Your task to perform on an android device: open app "Upside-Cash back on gas & food" (install if not already installed) and go to login screen Image 0: 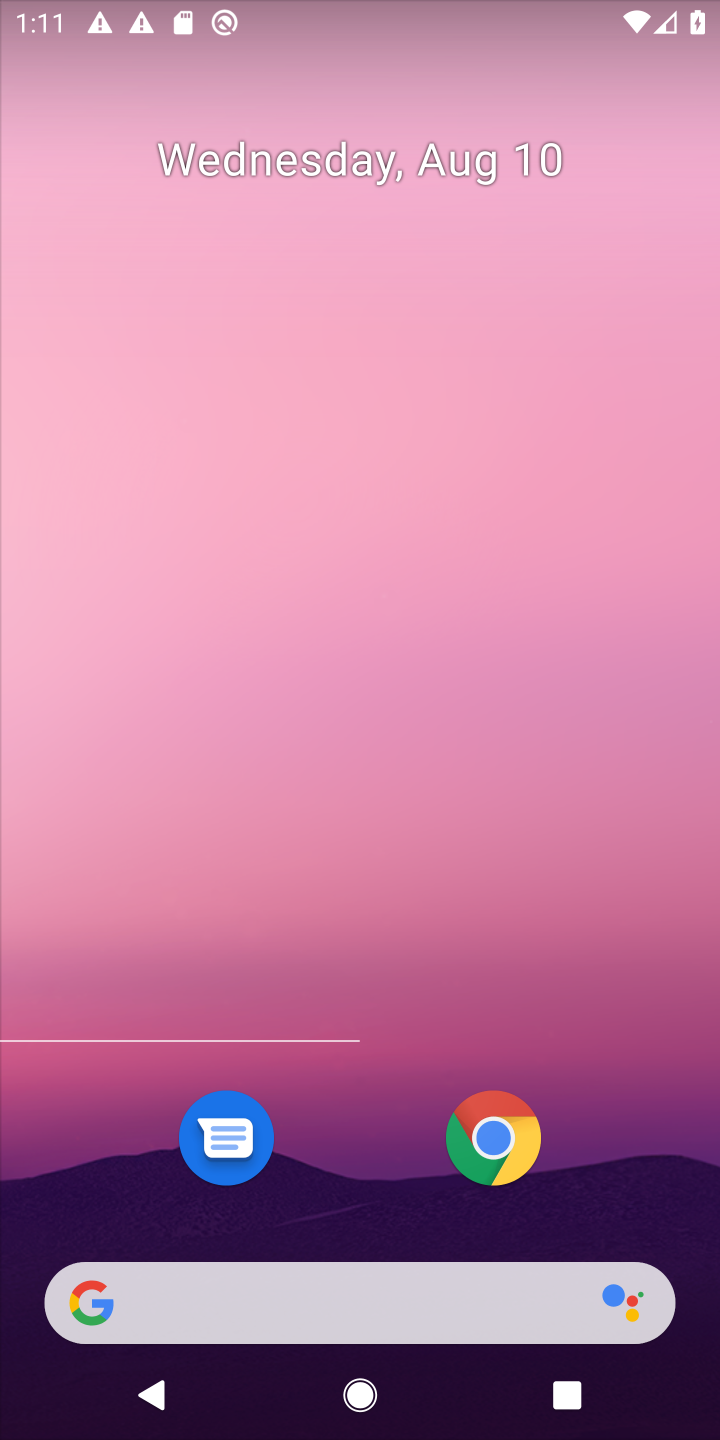
Step 0: press home button
Your task to perform on an android device: open app "Upside-Cash back on gas & food" (install if not already installed) and go to login screen Image 1: 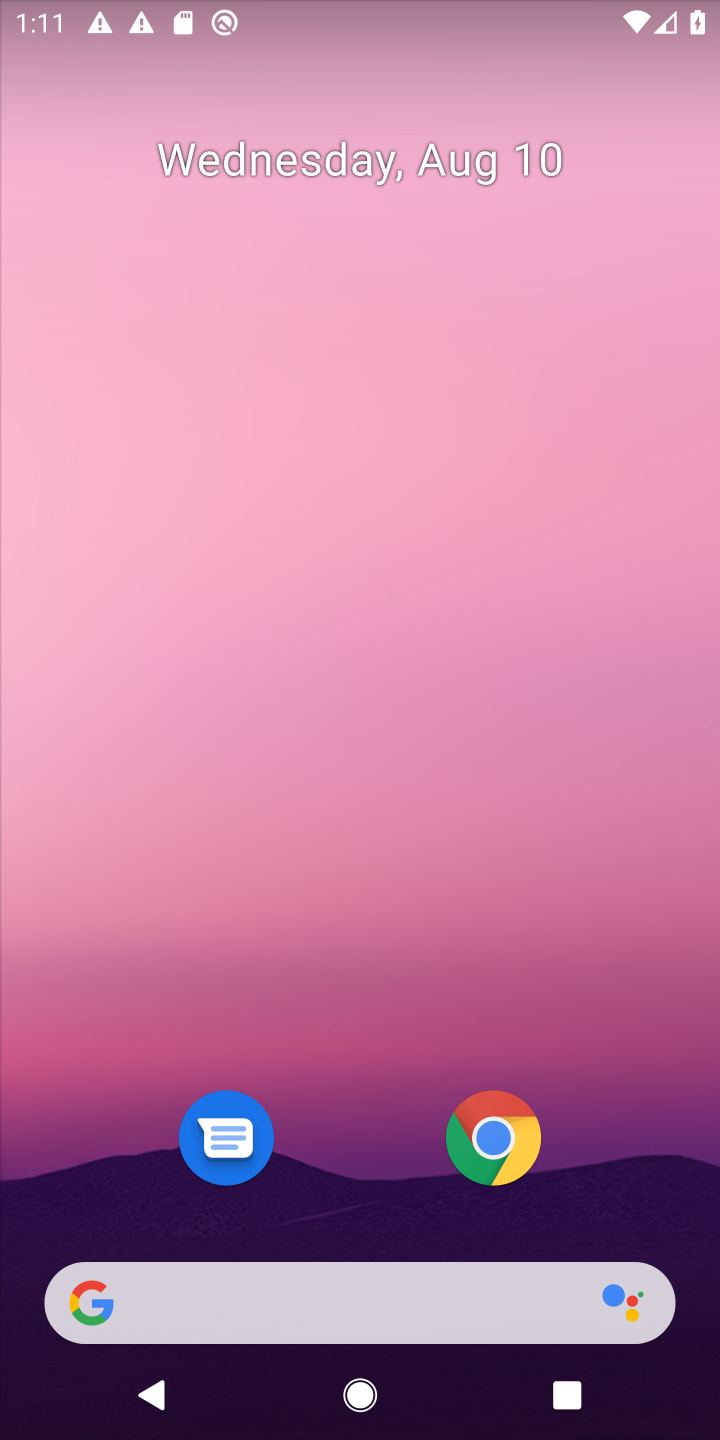
Step 1: drag from (626, 1170) to (683, 95)
Your task to perform on an android device: open app "Upside-Cash back on gas & food" (install if not already installed) and go to login screen Image 2: 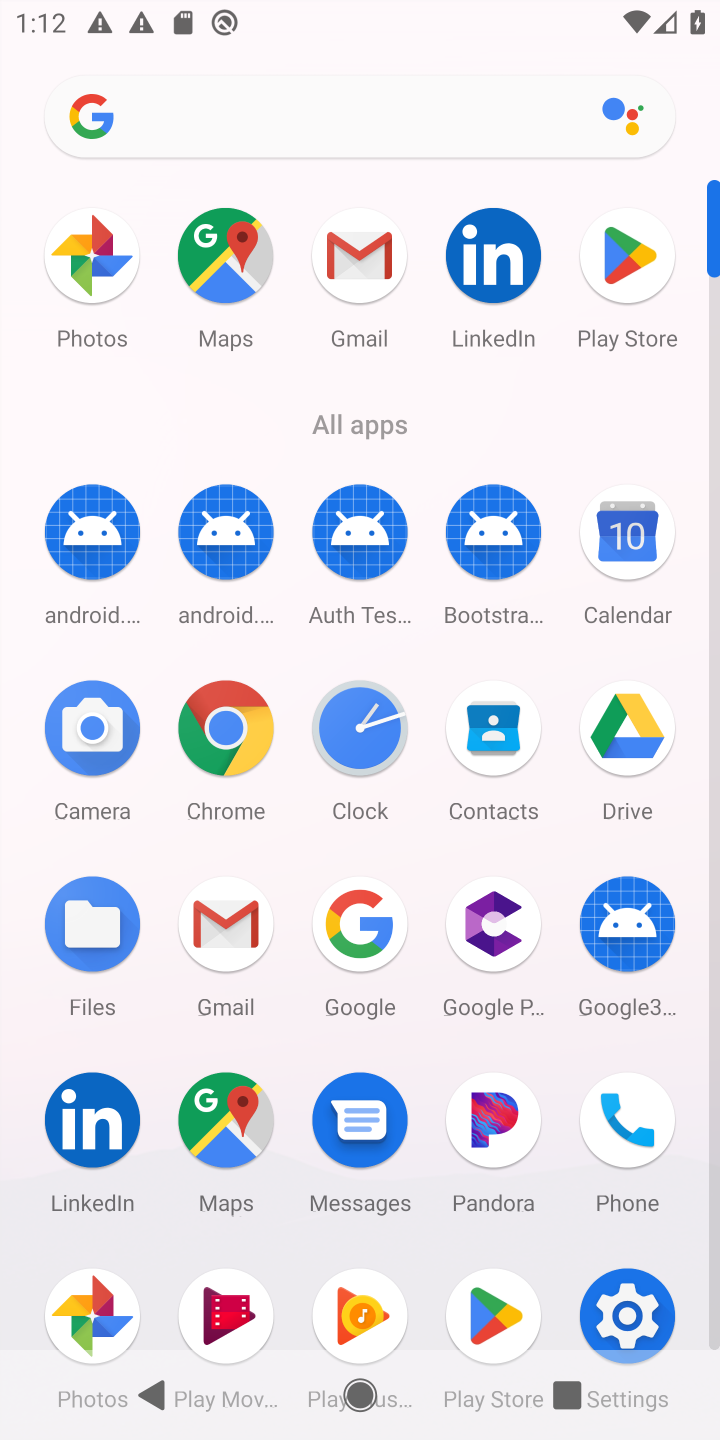
Step 2: click (641, 242)
Your task to perform on an android device: open app "Upside-Cash back on gas & food" (install if not already installed) and go to login screen Image 3: 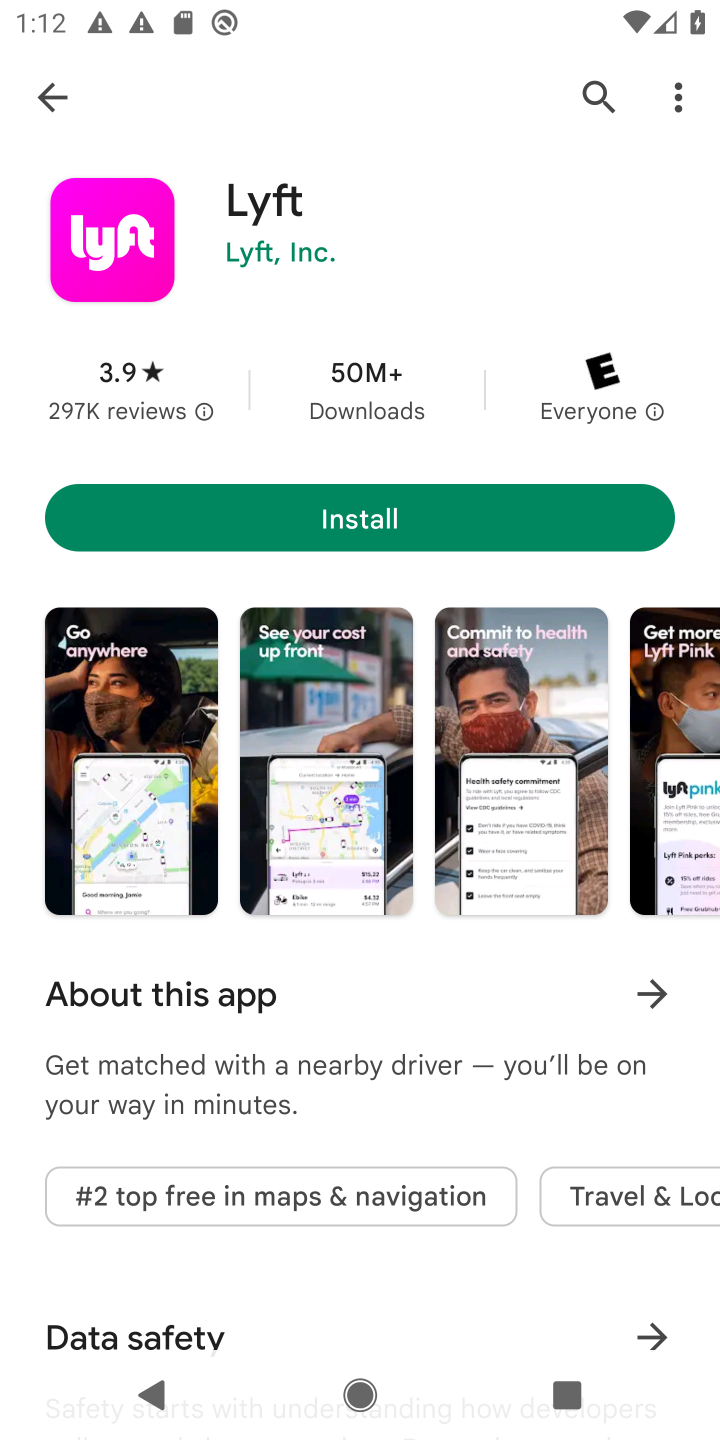
Step 3: click (601, 94)
Your task to perform on an android device: open app "Upside-Cash back on gas & food" (install if not already installed) and go to login screen Image 4: 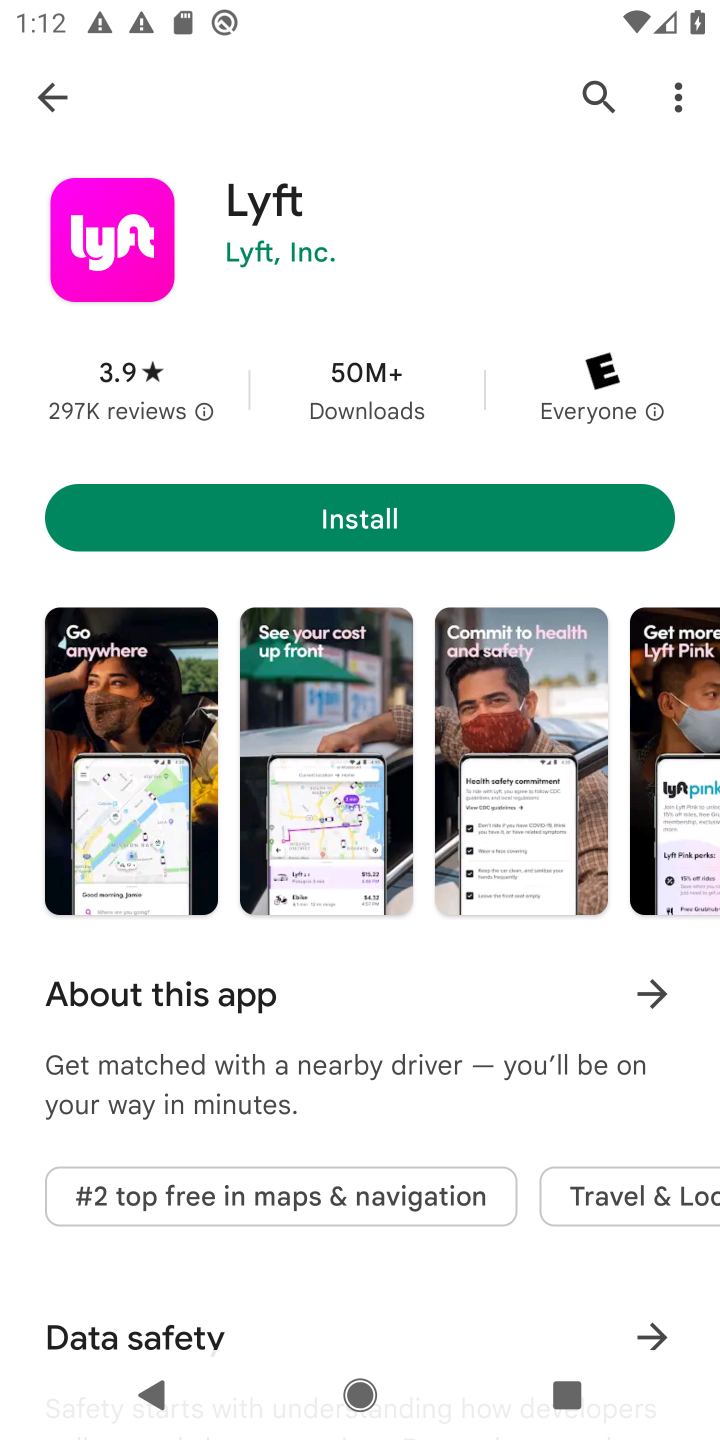
Step 4: click (590, 95)
Your task to perform on an android device: open app "Upside-Cash back on gas & food" (install if not already installed) and go to login screen Image 5: 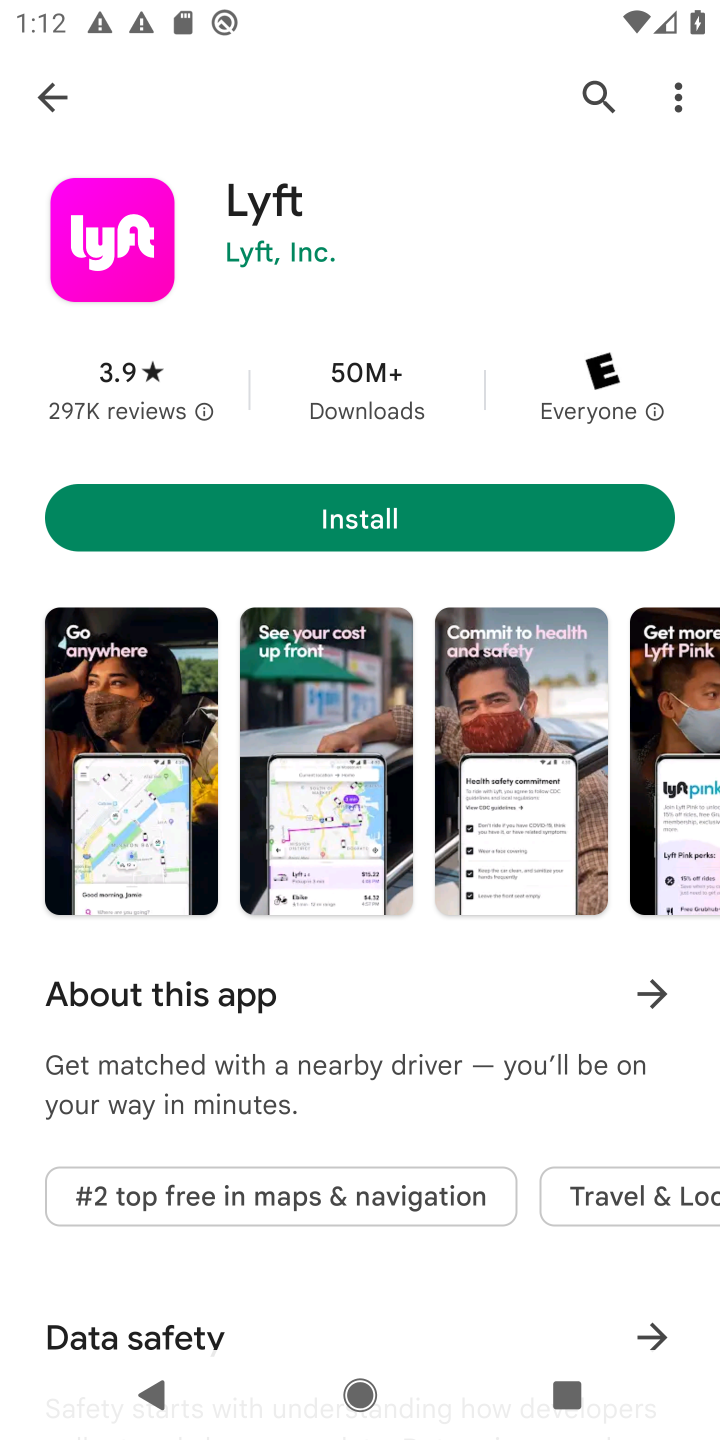
Step 5: click (592, 80)
Your task to perform on an android device: open app "Upside-Cash back on gas & food" (install if not already installed) and go to login screen Image 6: 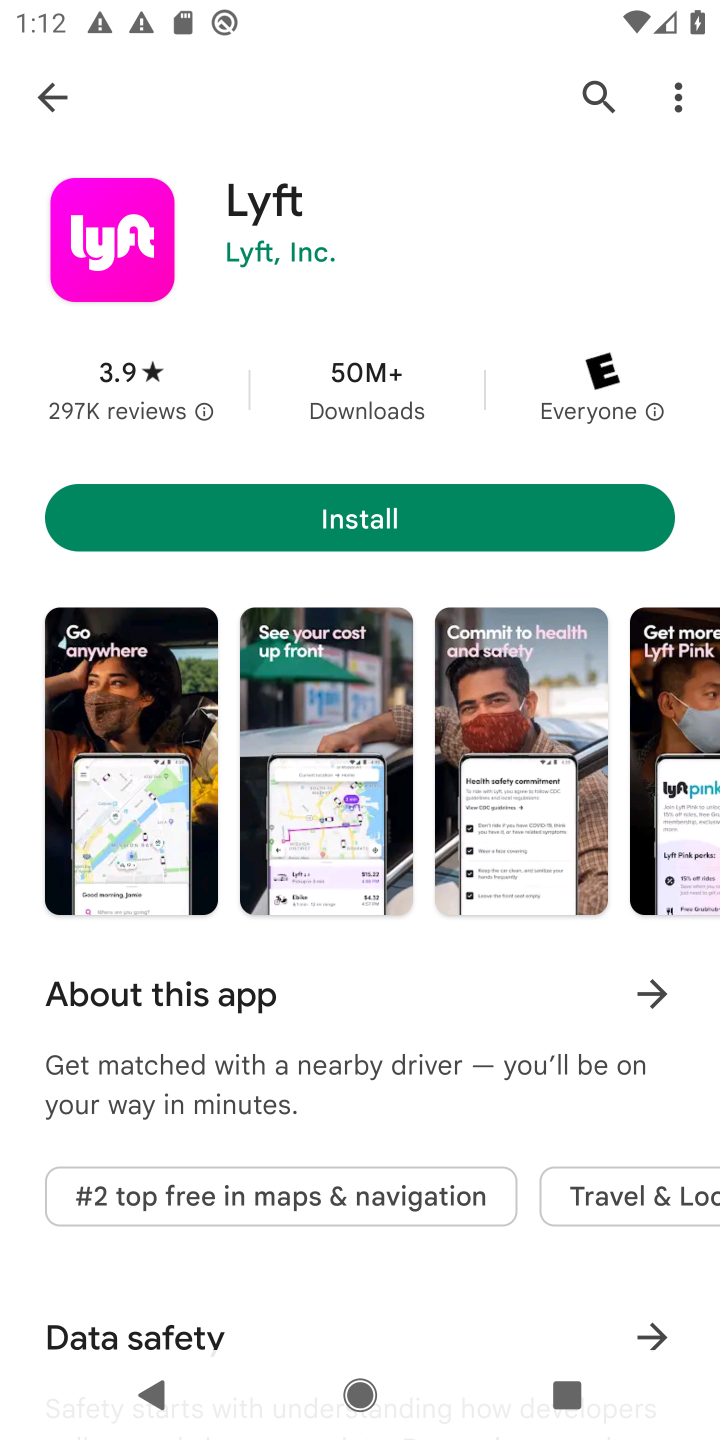
Step 6: press back button
Your task to perform on an android device: open app "Upside-Cash back on gas & food" (install if not already installed) and go to login screen Image 7: 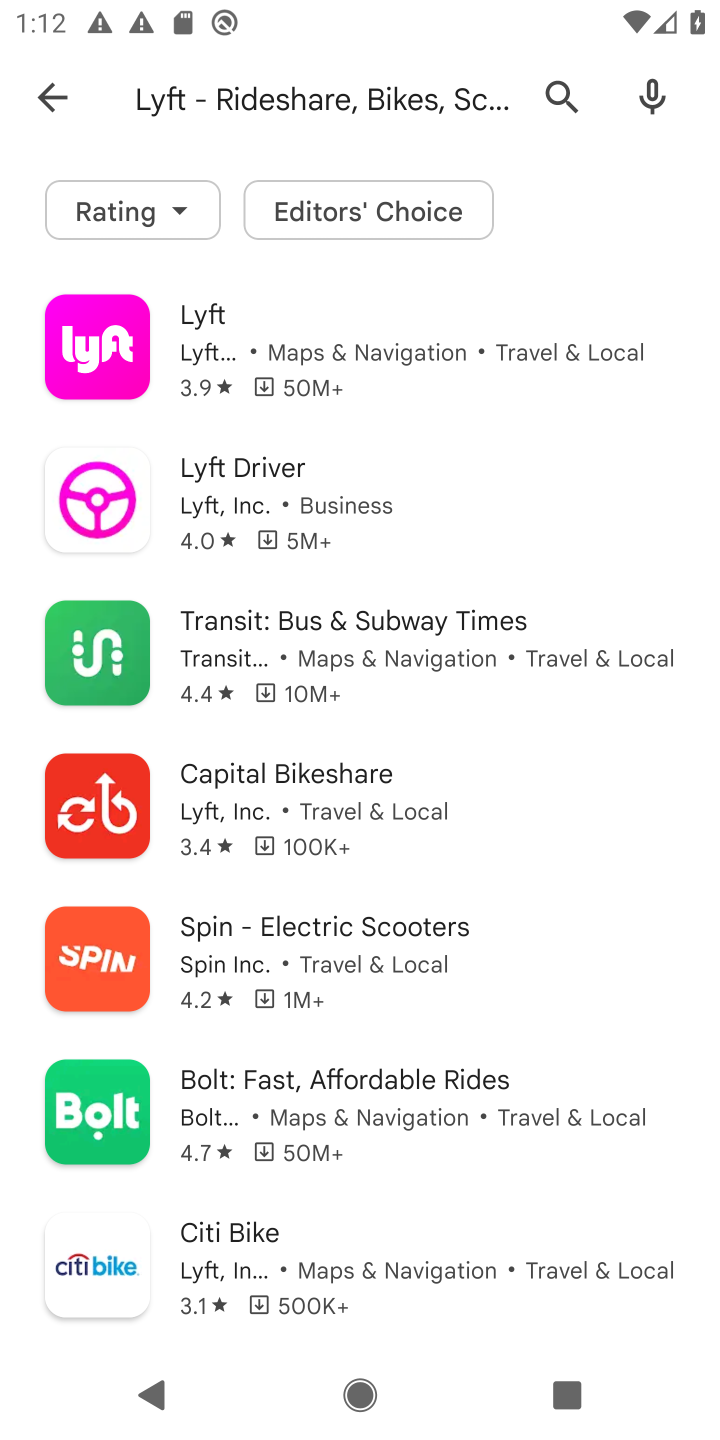
Step 7: click (555, 85)
Your task to perform on an android device: open app "Upside-Cash back on gas & food" (install if not already installed) and go to login screen Image 8: 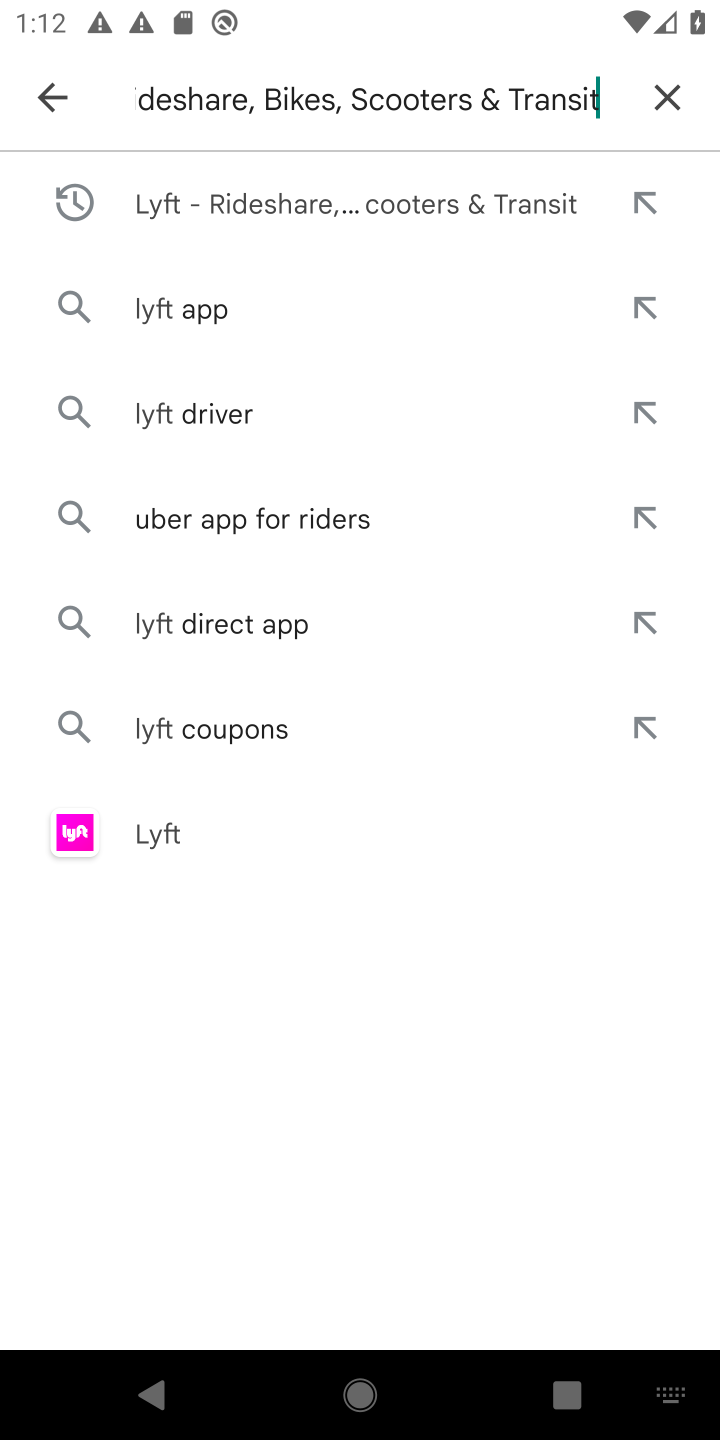
Step 8: click (673, 100)
Your task to perform on an android device: open app "Upside-Cash back on gas & food" (install if not already installed) and go to login screen Image 9: 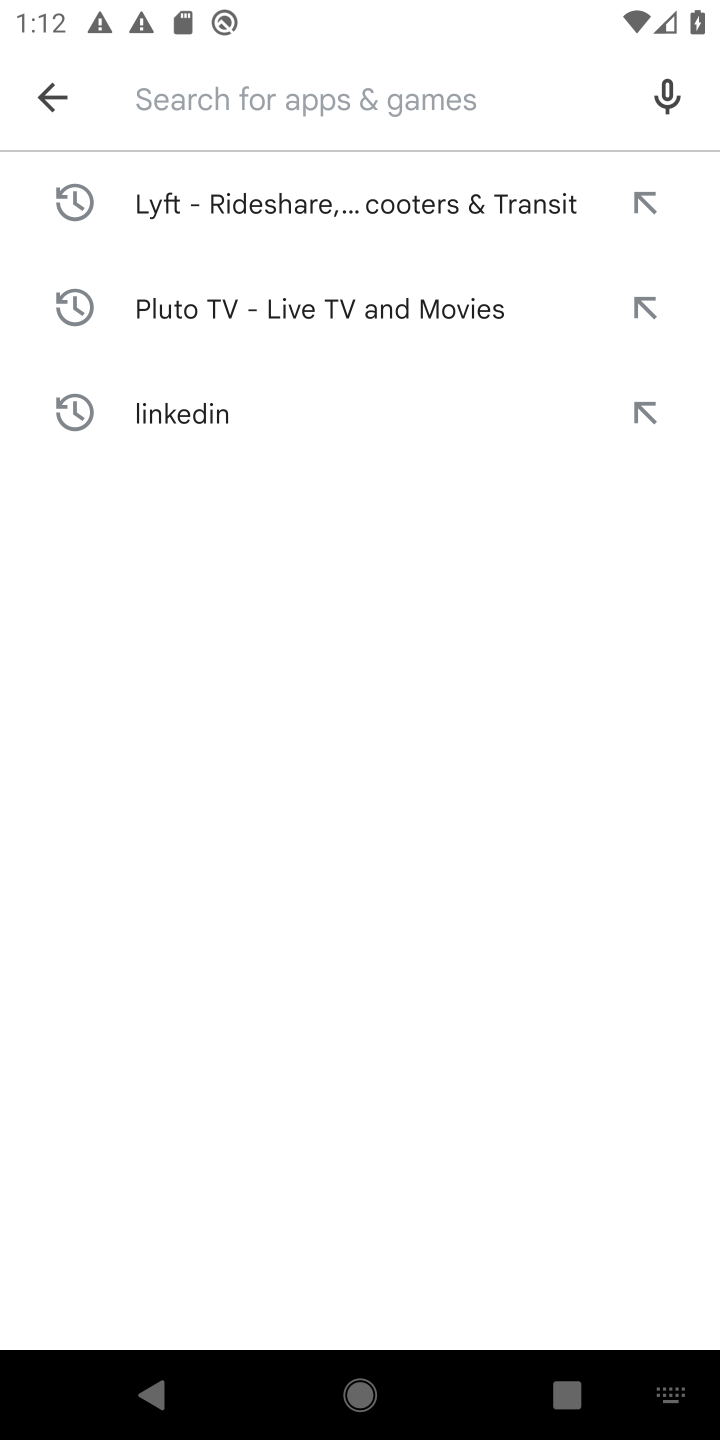
Step 9: type "Upside-Cash back on gas & food"
Your task to perform on an android device: open app "Upside-Cash back on gas & food" (install if not already installed) and go to login screen Image 10: 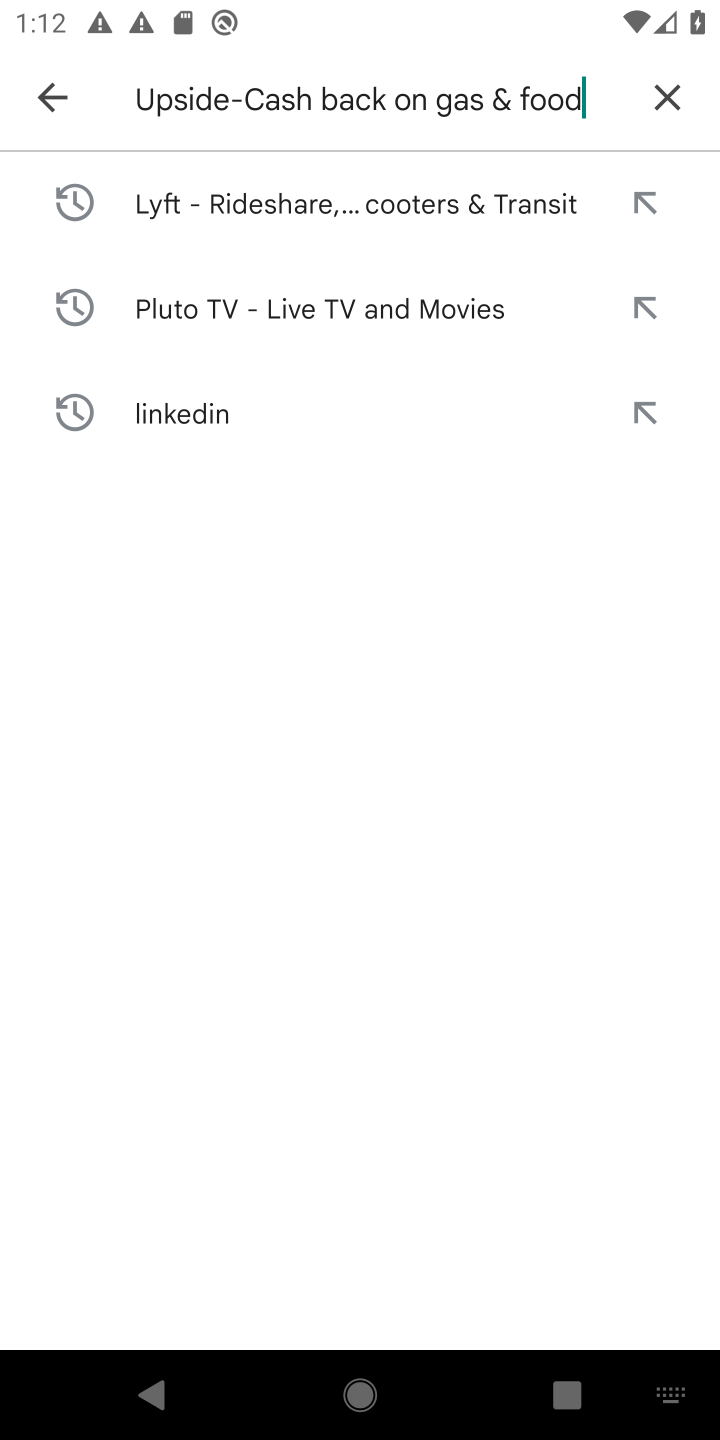
Step 10: press enter
Your task to perform on an android device: open app "Upside-Cash back on gas & food" (install if not already installed) and go to login screen Image 11: 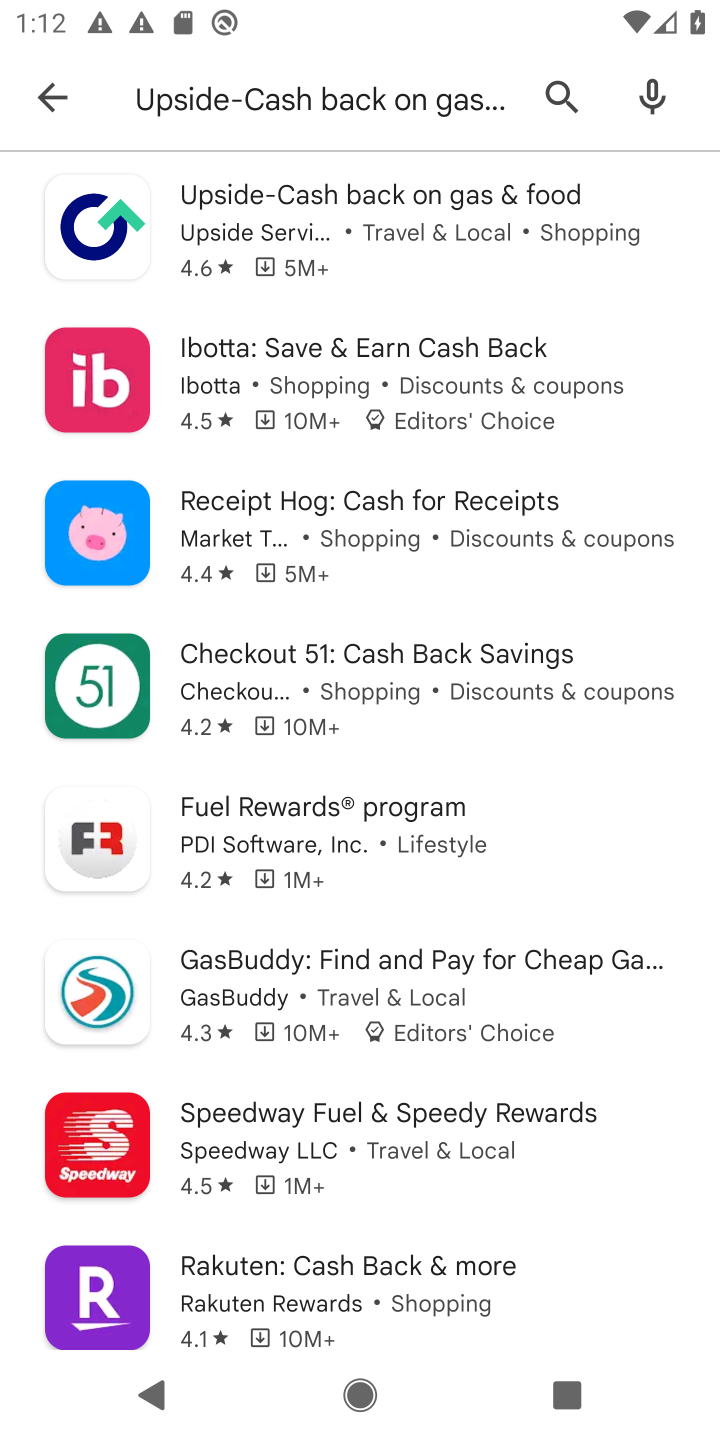
Step 11: task complete